Your task to perform on an android device: find which apps use the phone's location Image 0: 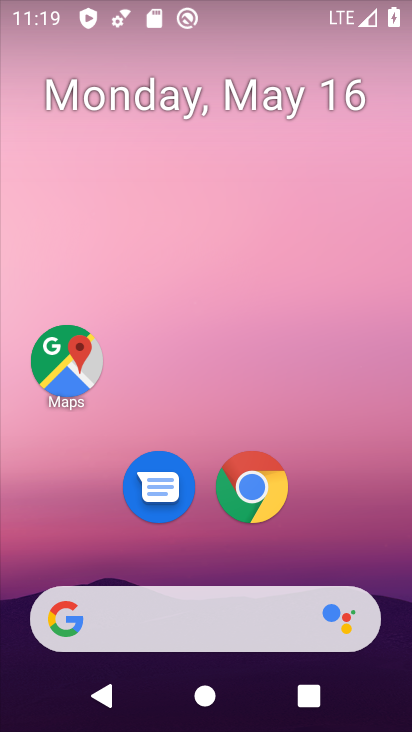
Step 0: drag from (46, 539) to (241, 156)
Your task to perform on an android device: find which apps use the phone's location Image 1: 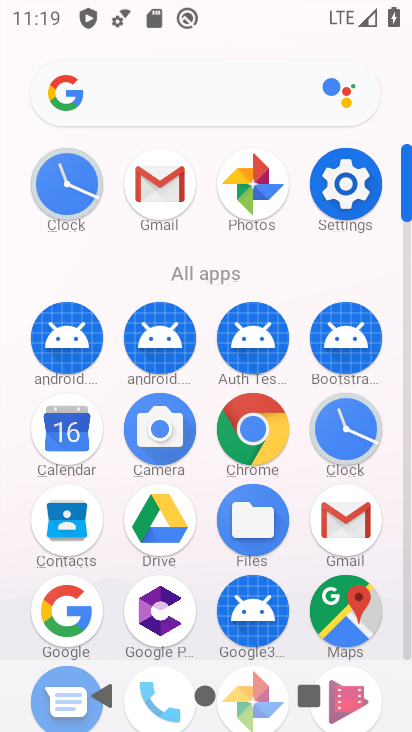
Step 1: click (360, 184)
Your task to perform on an android device: find which apps use the phone's location Image 2: 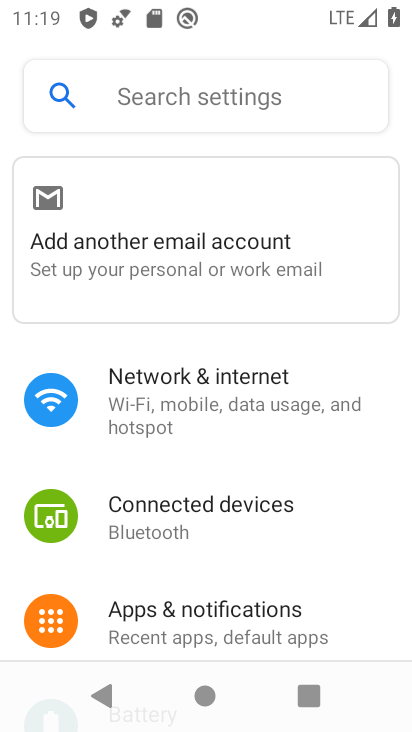
Step 2: drag from (29, 626) to (230, 242)
Your task to perform on an android device: find which apps use the phone's location Image 3: 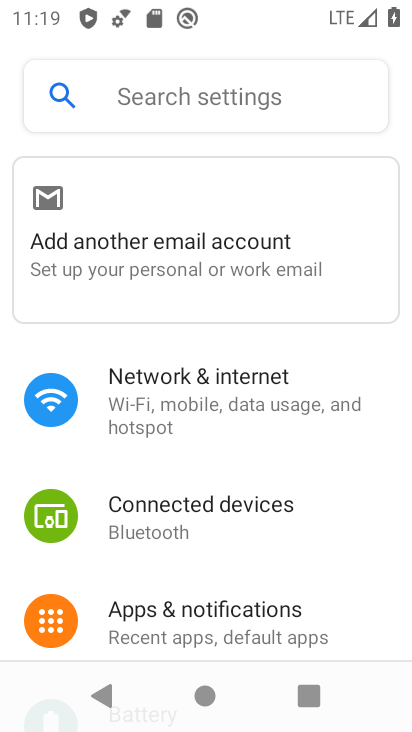
Step 3: drag from (30, 612) to (310, 228)
Your task to perform on an android device: find which apps use the phone's location Image 4: 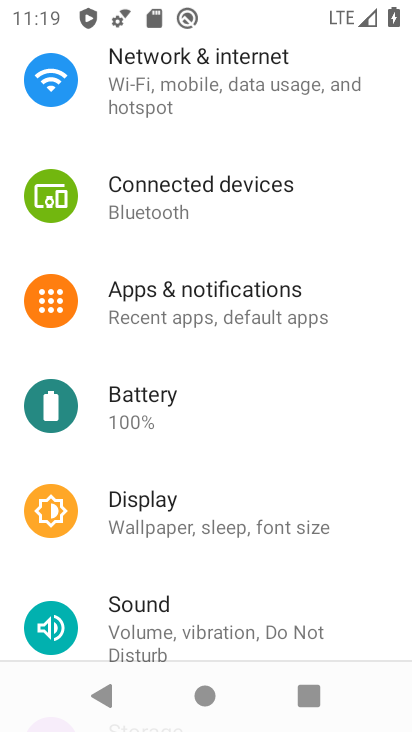
Step 4: drag from (107, 674) to (267, 365)
Your task to perform on an android device: find which apps use the phone's location Image 5: 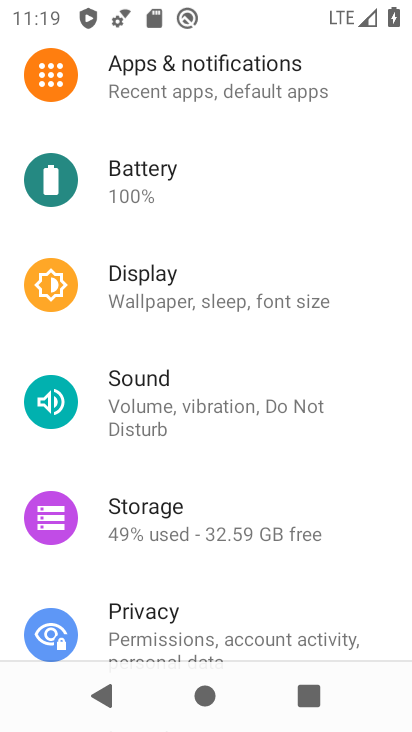
Step 5: drag from (40, 634) to (274, 292)
Your task to perform on an android device: find which apps use the phone's location Image 6: 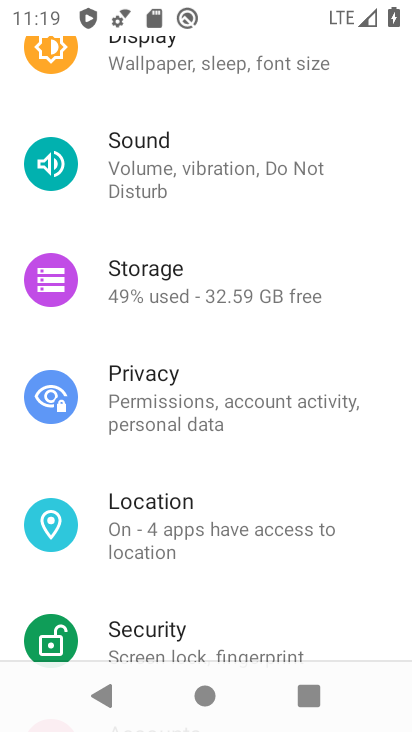
Step 6: click (156, 507)
Your task to perform on an android device: find which apps use the phone's location Image 7: 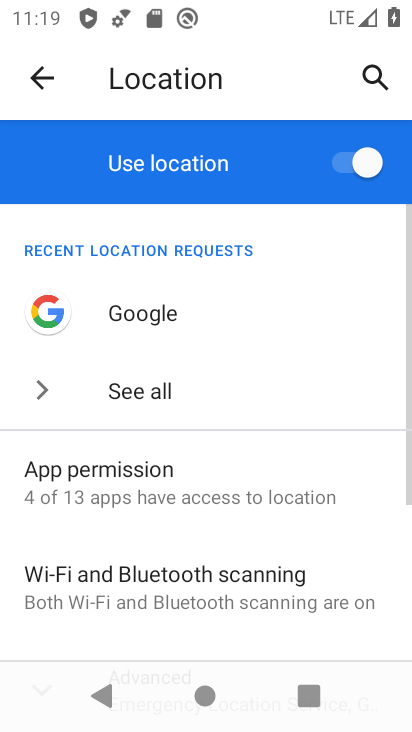
Step 7: click (151, 471)
Your task to perform on an android device: find which apps use the phone's location Image 8: 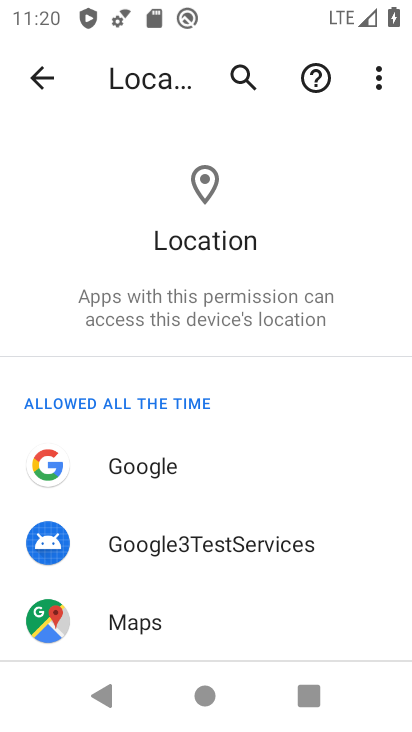
Step 8: task complete